Your task to perform on an android device: Is it going to rain this weekend? Image 0: 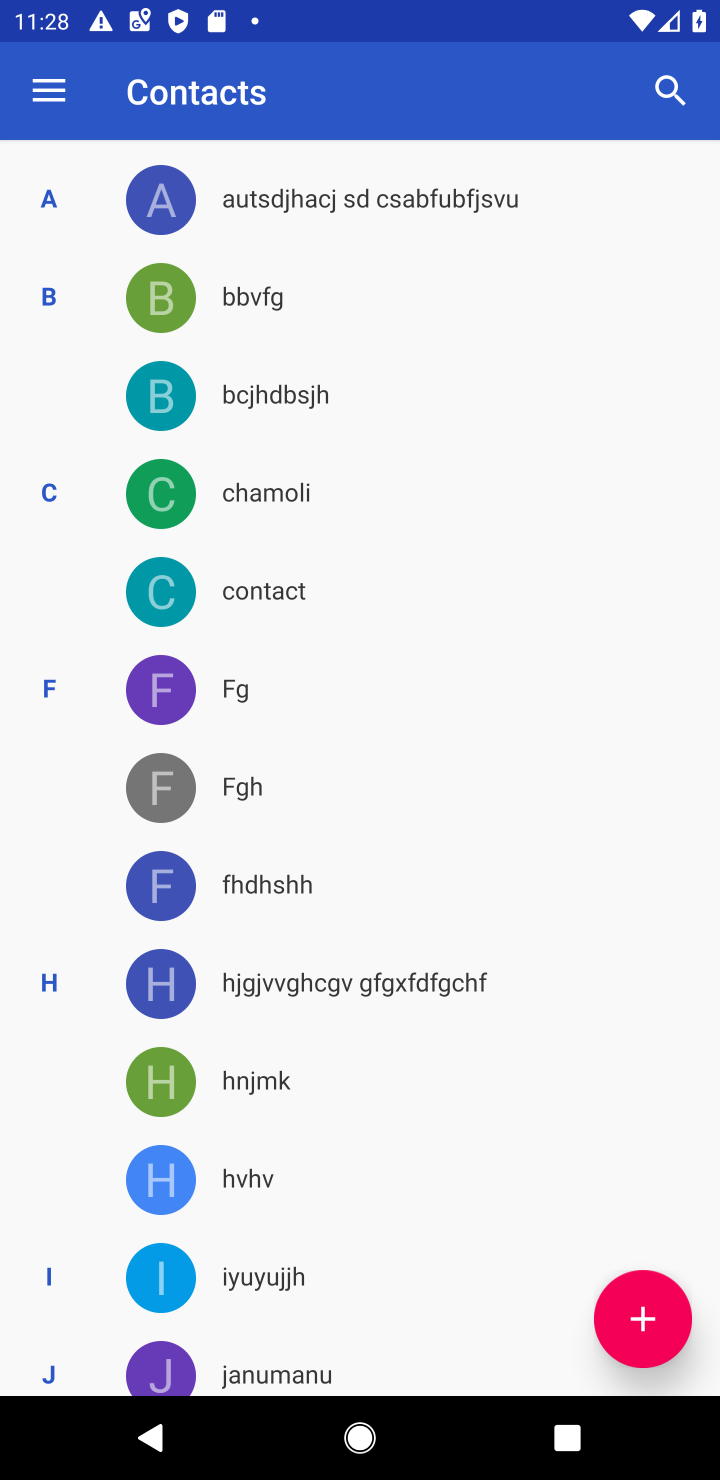
Step 0: press home button
Your task to perform on an android device: Is it going to rain this weekend? Image 1: 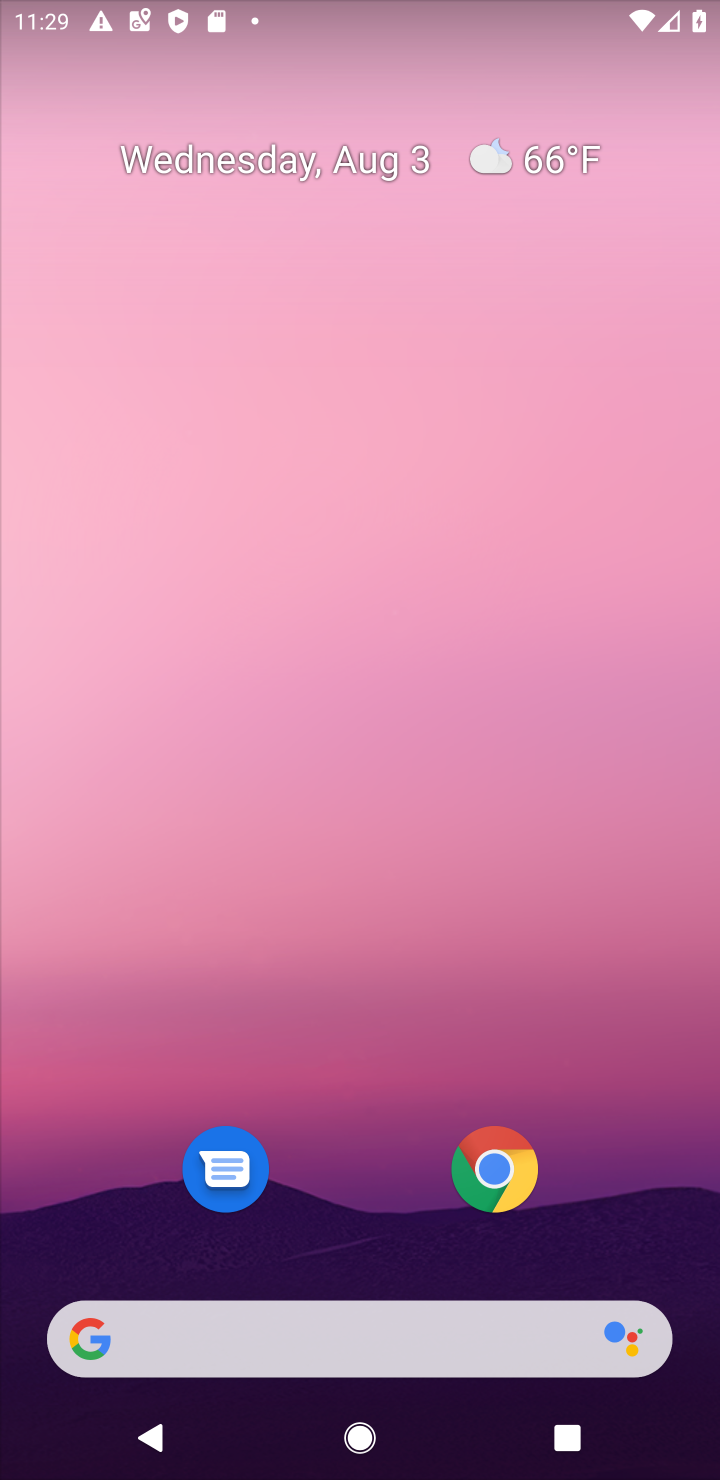
Step 1: drag from (408, 877) to (370, 117)
Your task to perform on an android device: Is it going to rain this weekend? Image 2: 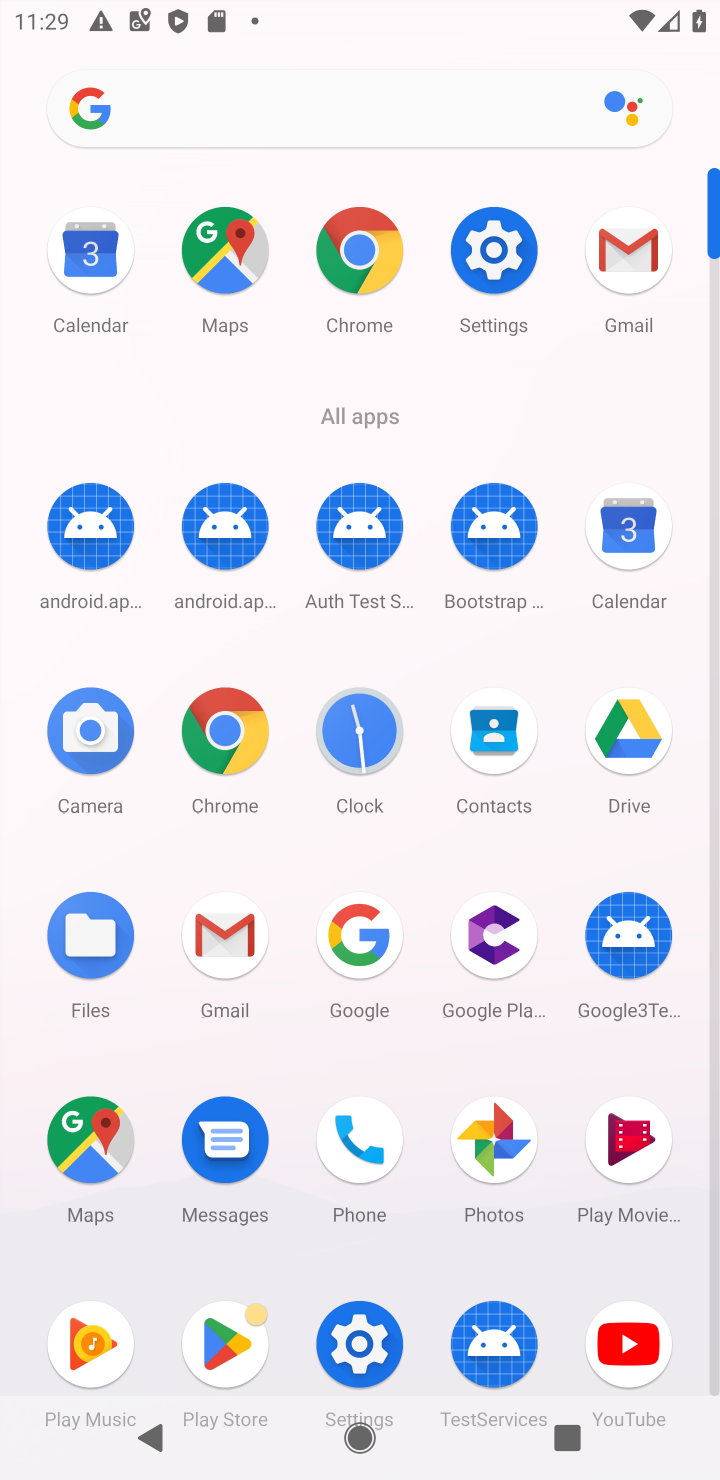
Step 2: click (245, 110)
Your task to perform on an android device: Is it going to rain this weekend? Image 3: 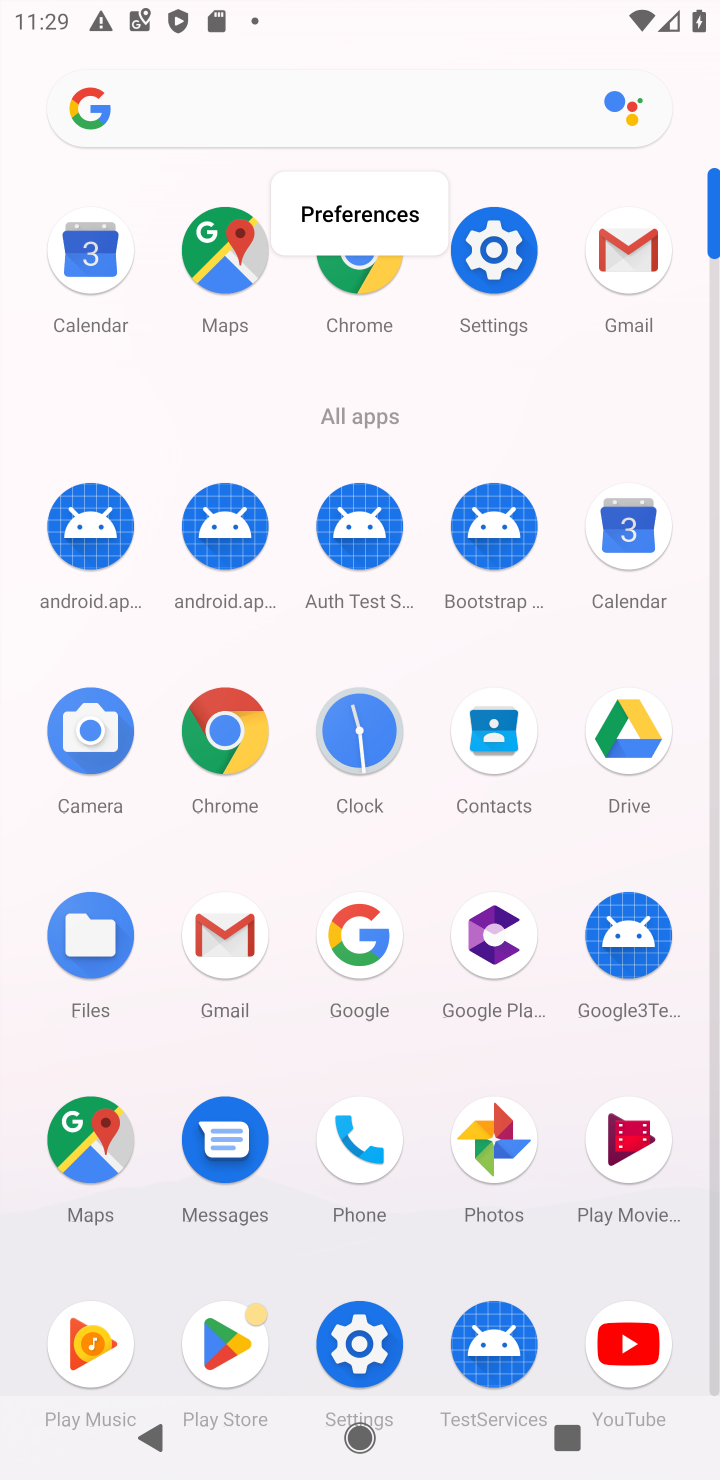
Step 3: click (245, 110)
Your task to perform on an android device: Is it going to rain this weekend? Image 4: 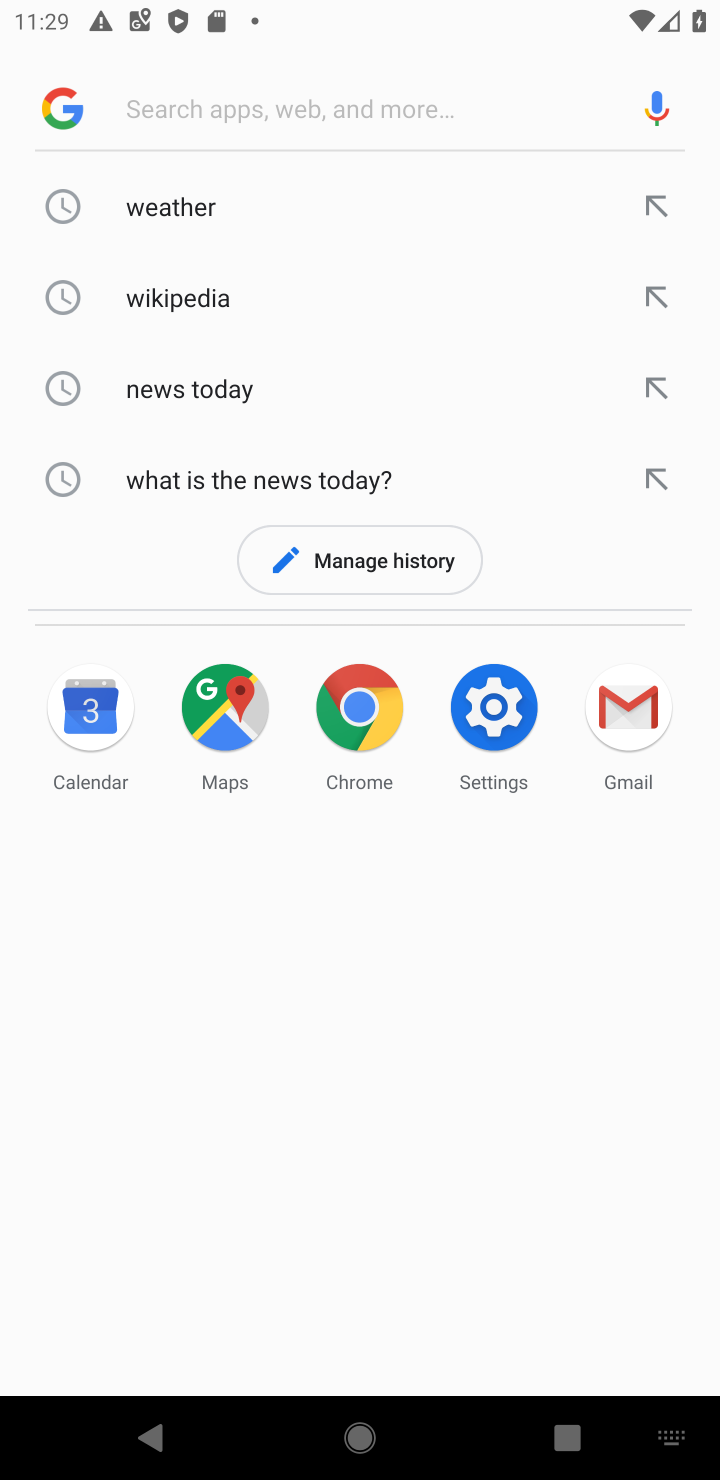
Step 4: click (170, 221)
Your task to perform on an android device: Is it going to rain this weekend? Image 5: 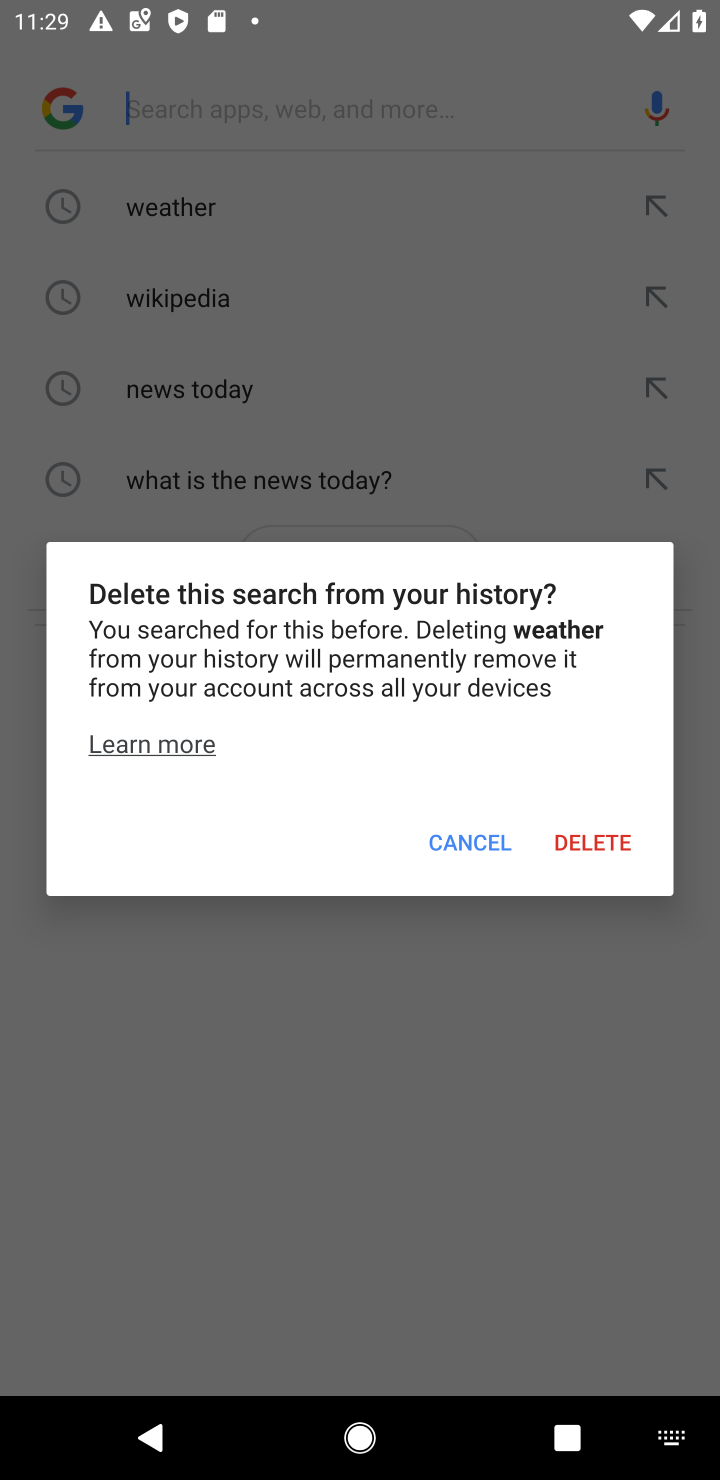
Step 5: click (440, 846)
Your task to perform on an android device: Is it going to rain this weekend? Image 6: 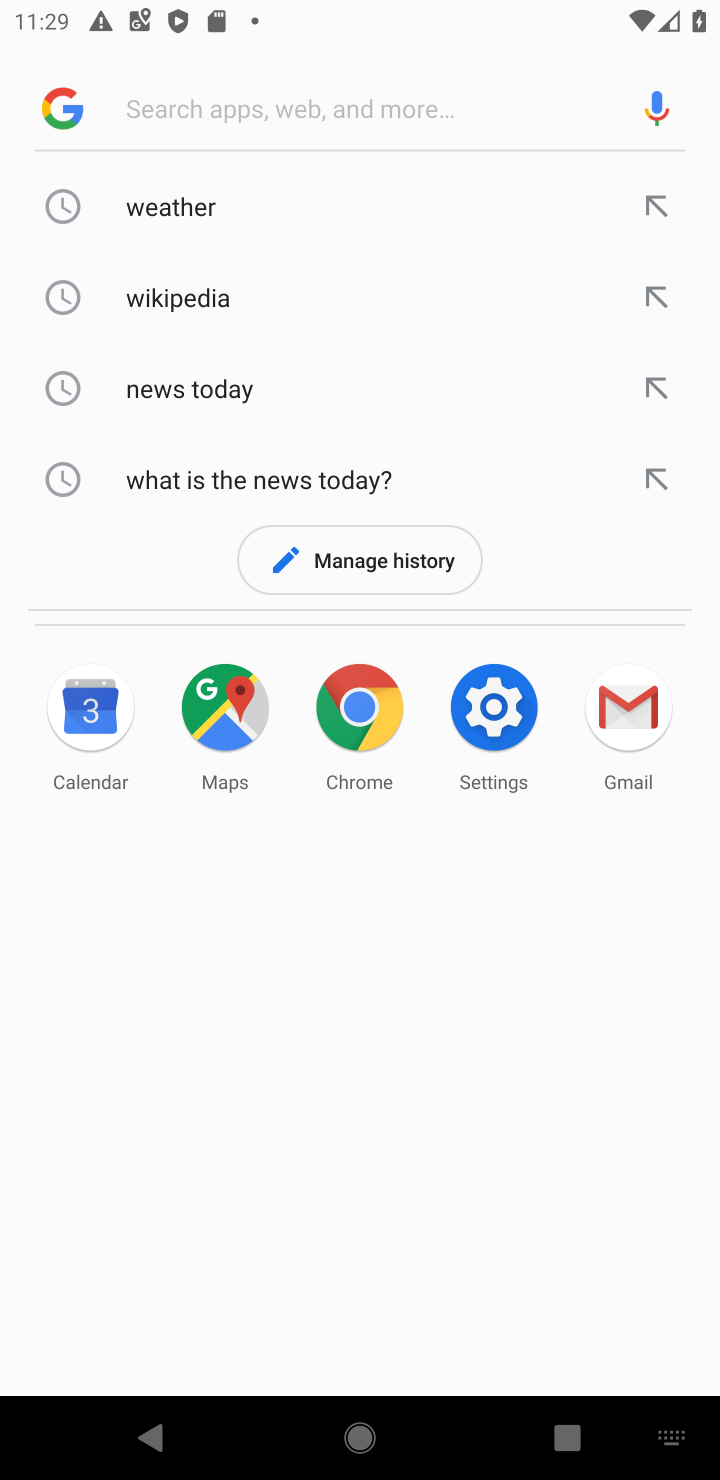
Step 6: click (192, 215)
Your task to perform on an android device: Is it going to rain this weekend? Image 7: 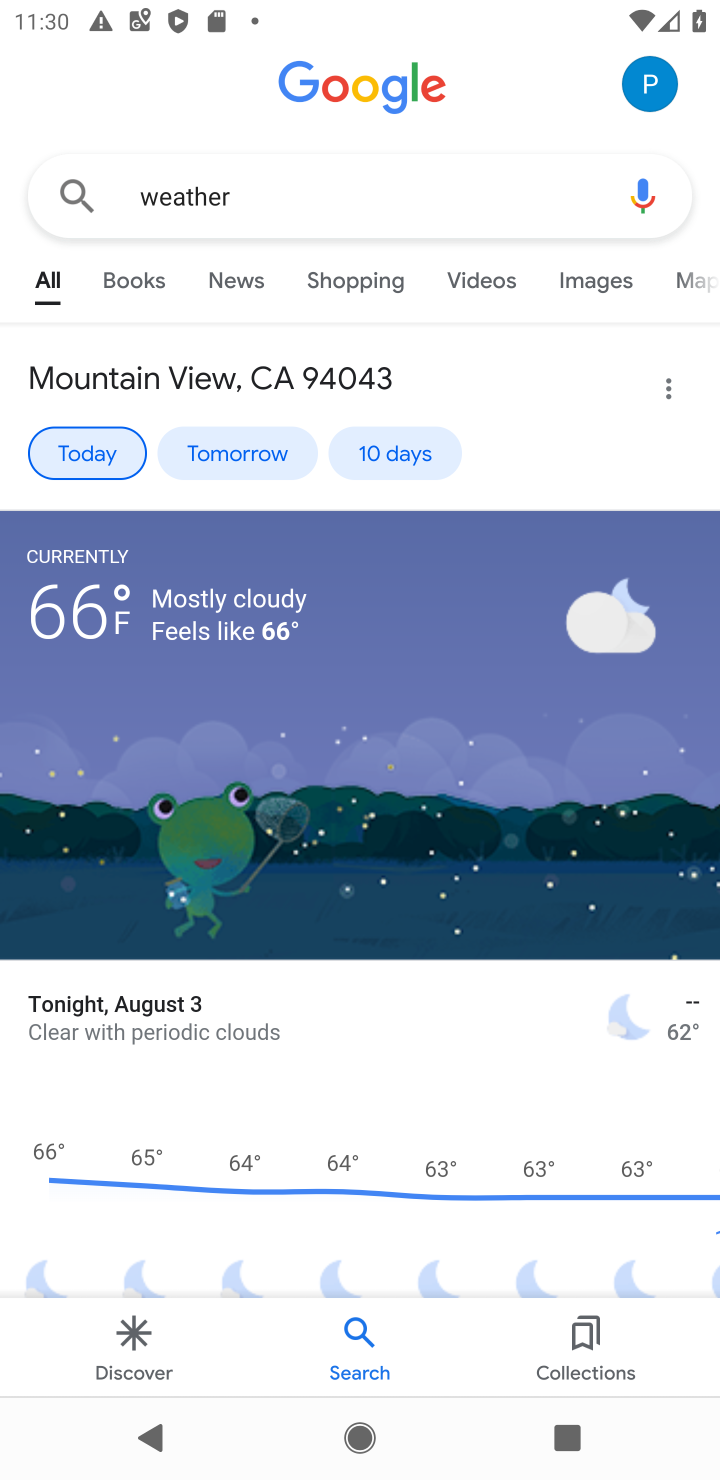
Step 7: click (375, 451)
Your task to perform on an android device: Is it going to rain this weekend? Image 8: 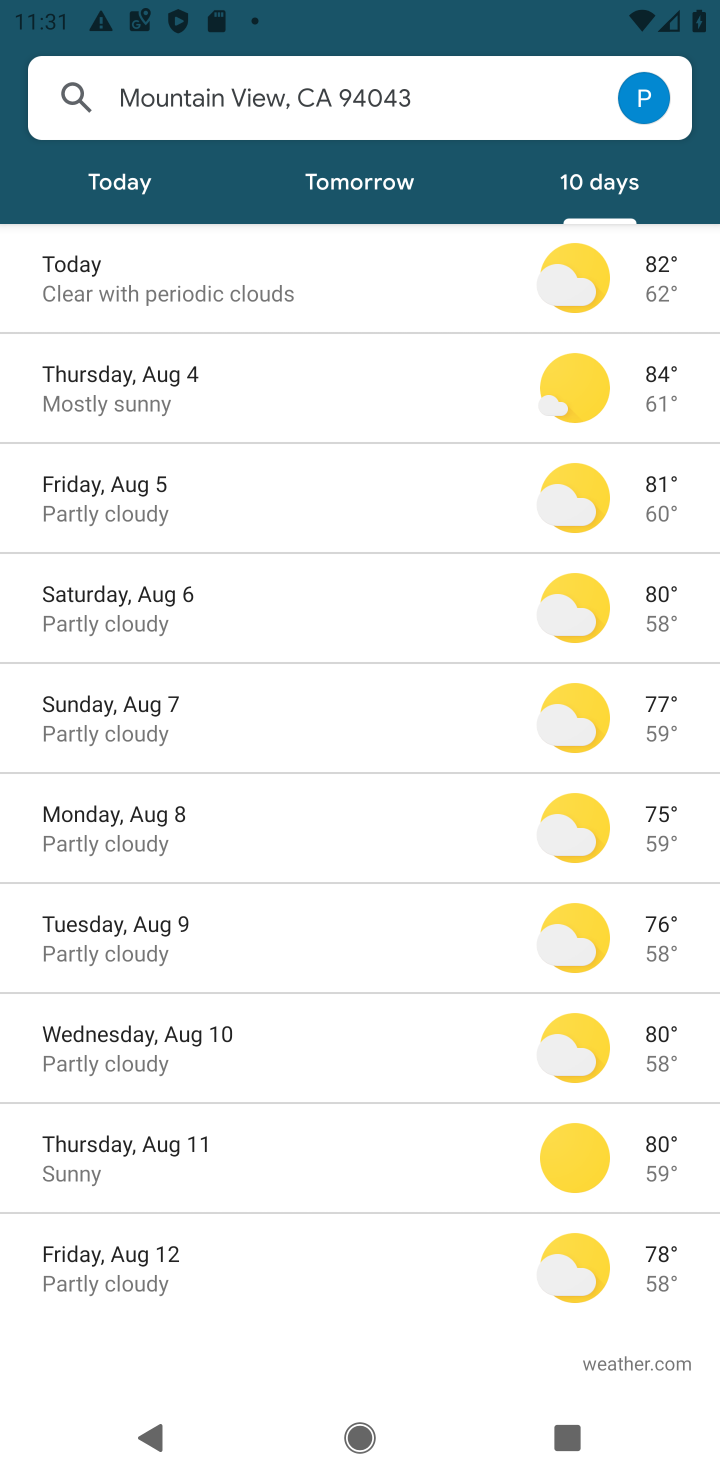
Step 8: click (119, 532)
Your task to perform on an android device: Is it going to rain this weekend? Image 9: 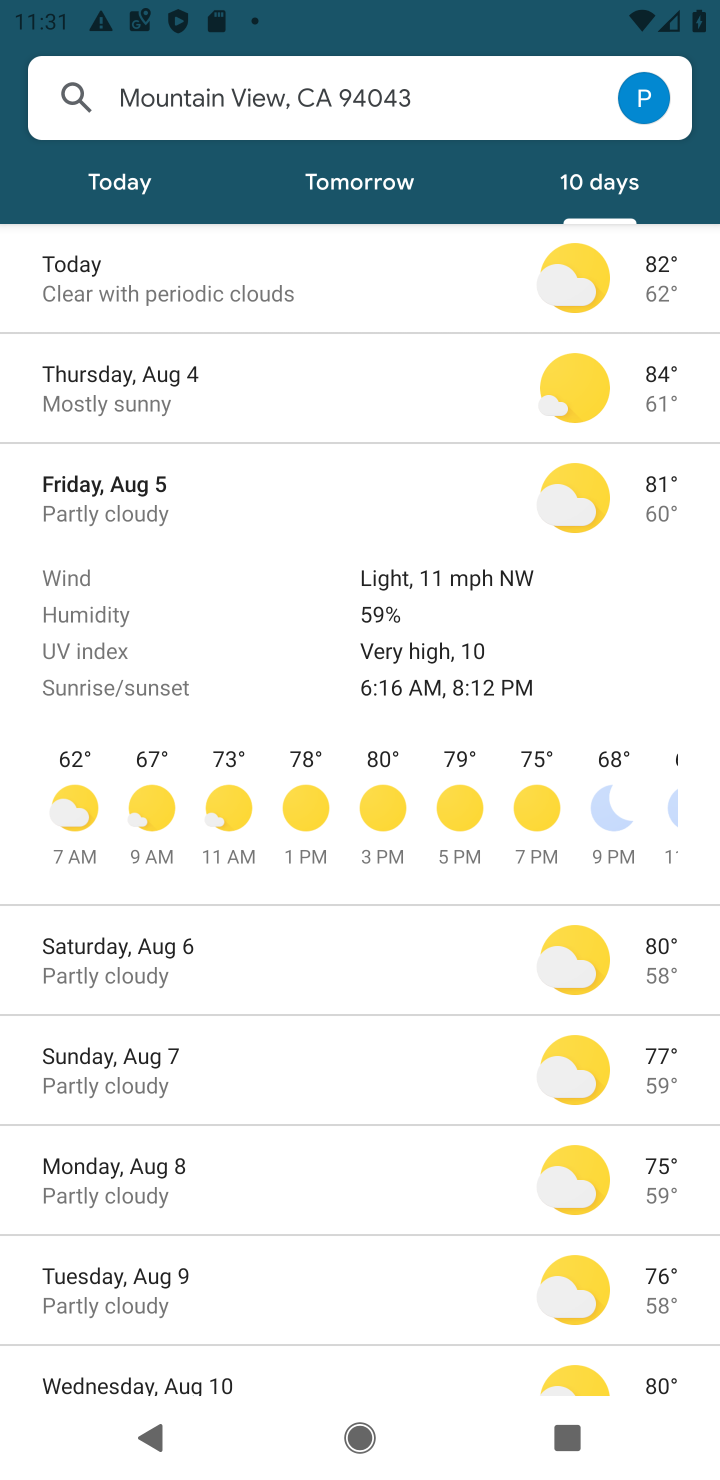
Step 9: task complete